Your task to perform on an android device: Go to Maps Image 0: 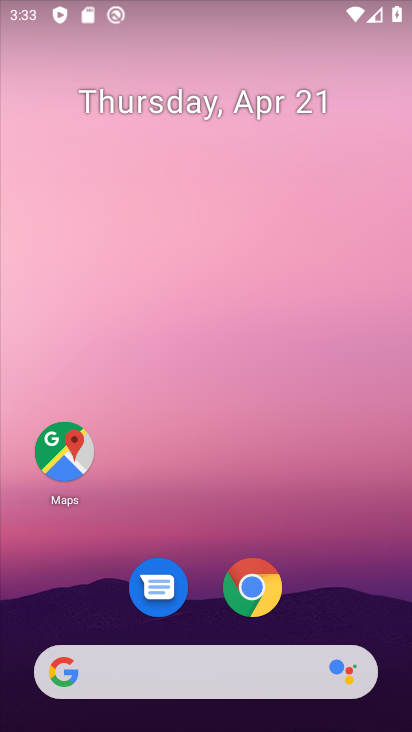
Step 0: click (67, 451)
Your task to perform on an android device: Go to Maps Image 1: 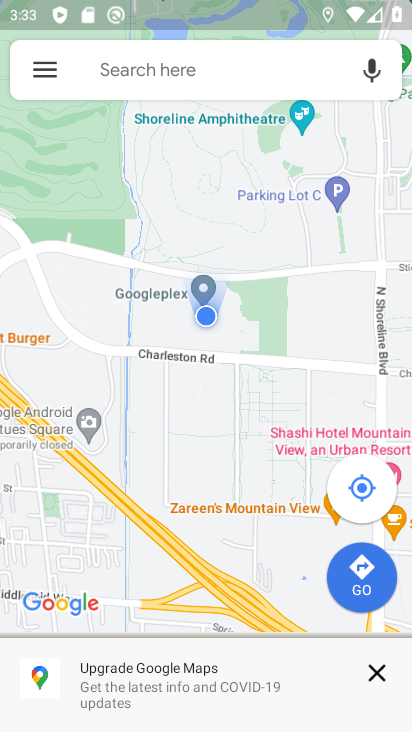
Step 1: task complete